Your task to perform on an android device: Open the web browser Image 0: 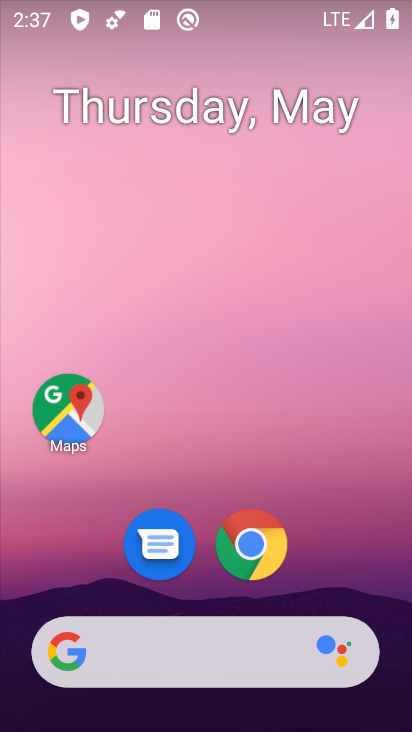
Step 0: click (249, 544)
Your task to perform on an android device: Open the web browser Image 1: 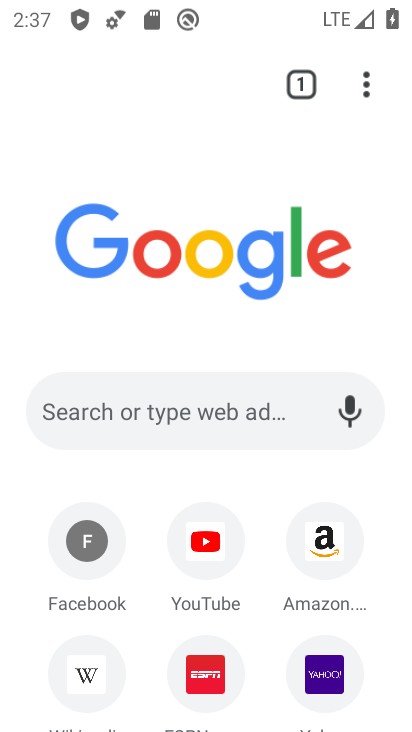
Step 1: task complete